Your task to perform on an android device: Open internet settings Image 0: 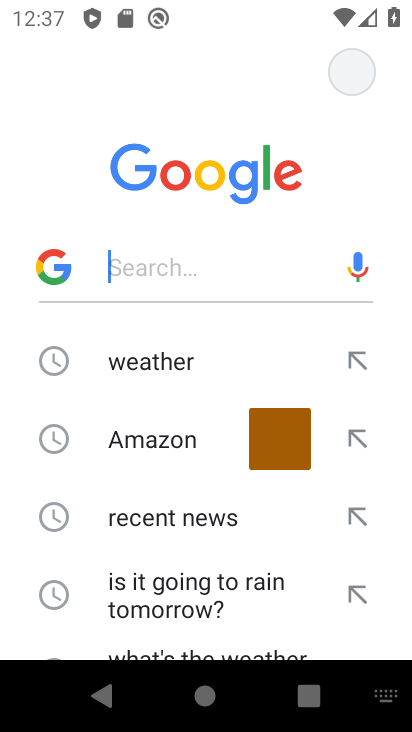
Step 0: press back button
Your task to perform on an android device: Open internet settings Image 1: 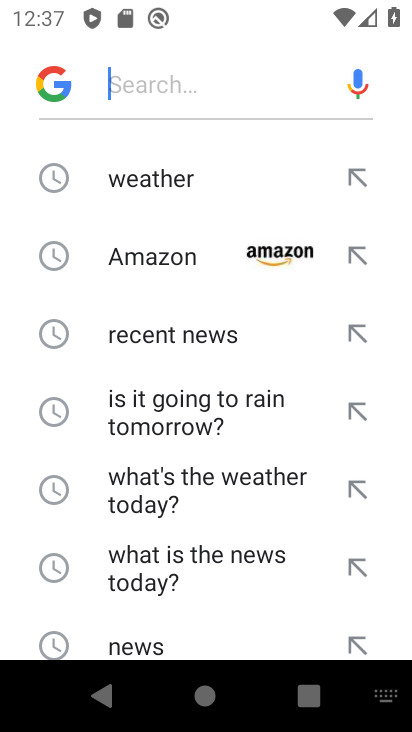
Step 1: press back button
Your task to perform on an android device: Open internet settings Image 2: 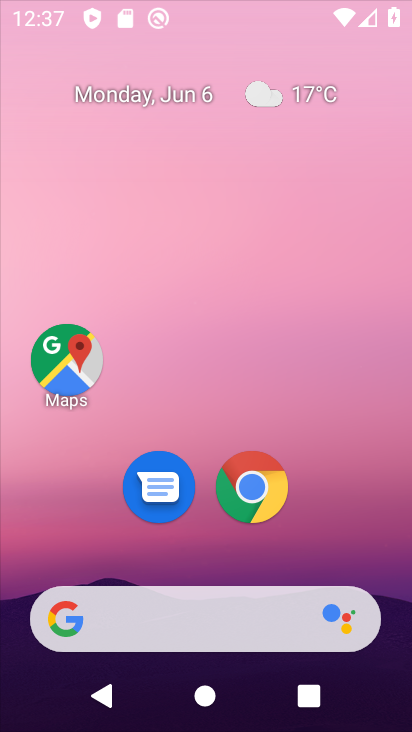
Step 2: press back button
Your task to perform on an android device: Open internet settings Image 3: 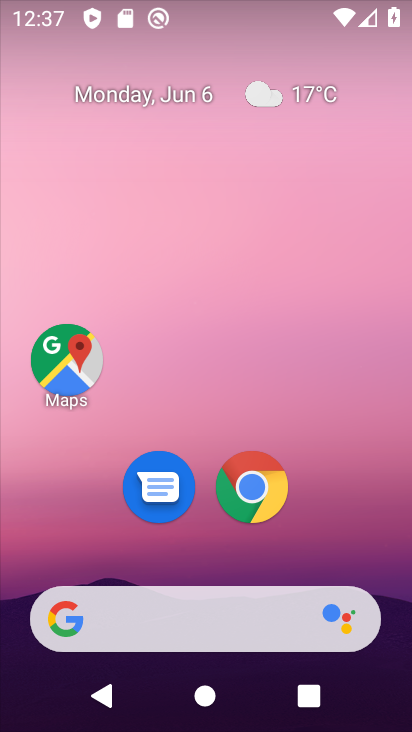
Step 3: drag from (220, 550) to (274, 66)
Your task to perform on an android device: Open internet settings Image 4: 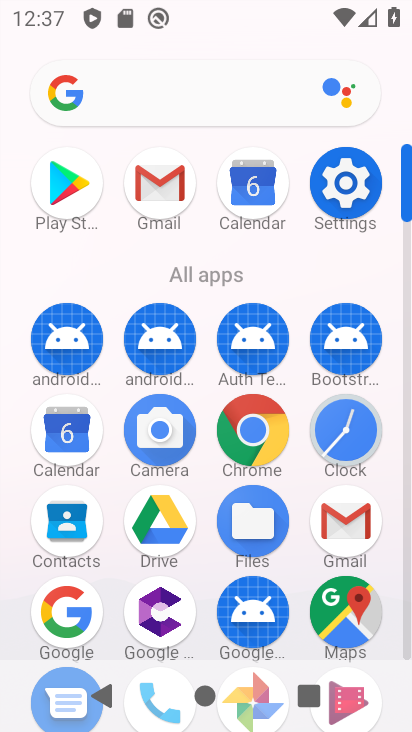
Step 4: click (331, 170)
Your task to perform on an android device: Open internet settings Image 5: 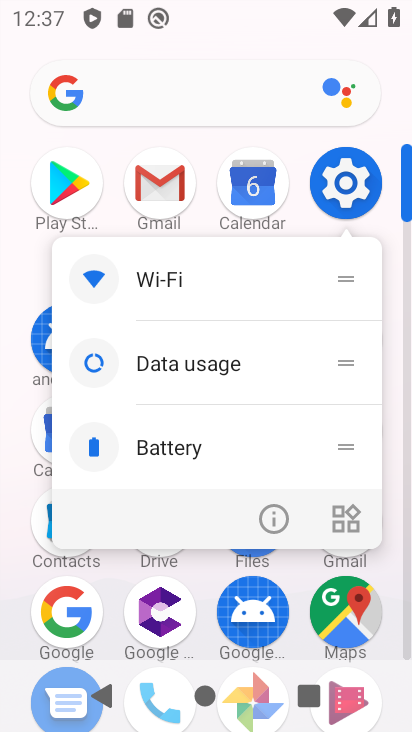
Step 5: click (341, 174)
Your task to perform on an android device: Open internet settings Image 6: 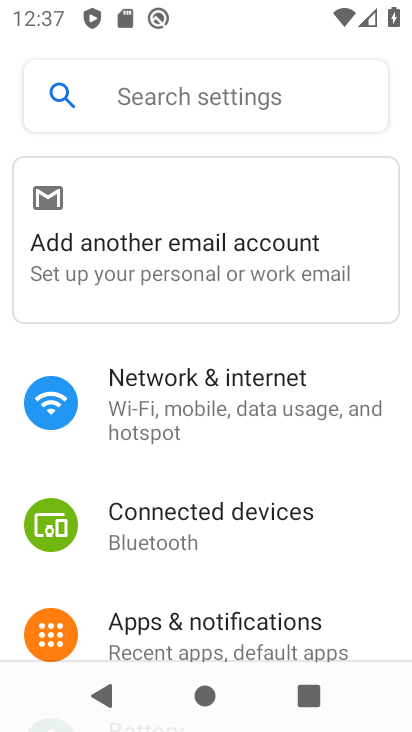
Step 6: click (260, 383)
Your task to perform on an android device: Open internet settings Image 7: 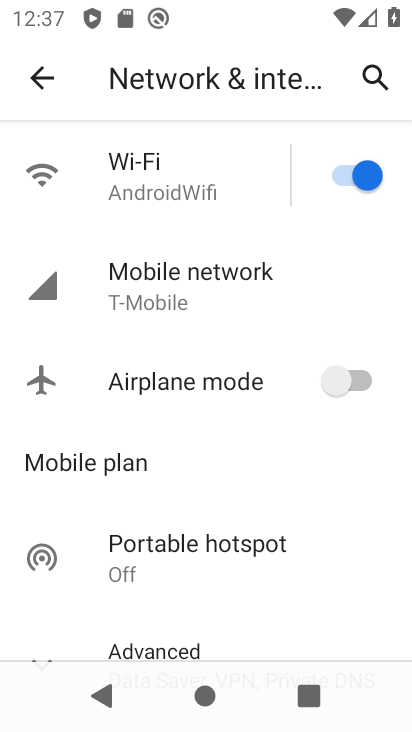
Step 7: task complete